Your task to perform on an android device: turn off notifications in google photos Image 0: 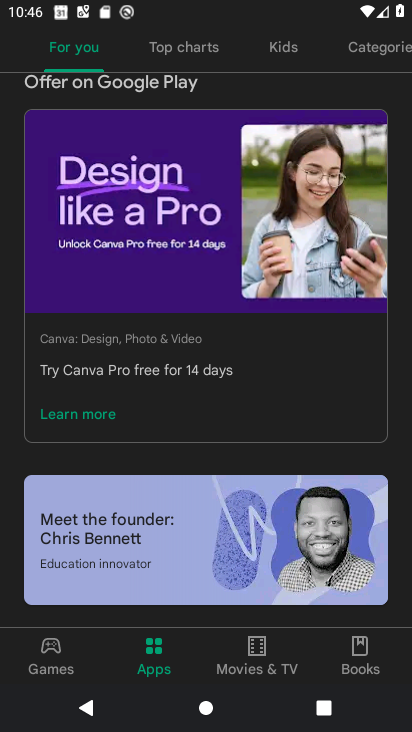
Step 0: press home button
Your task to perform on an android device: turn off notifications in google photos Image 1: 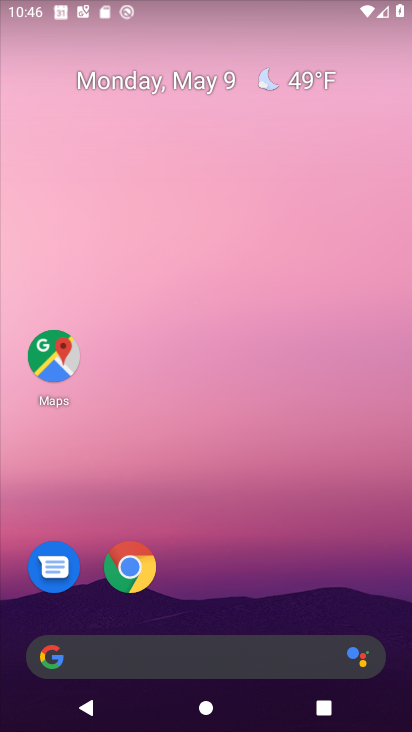
Step 1: click (130, 570)
Your task to perform on an android device: turn off notifications in google photos Image 2: 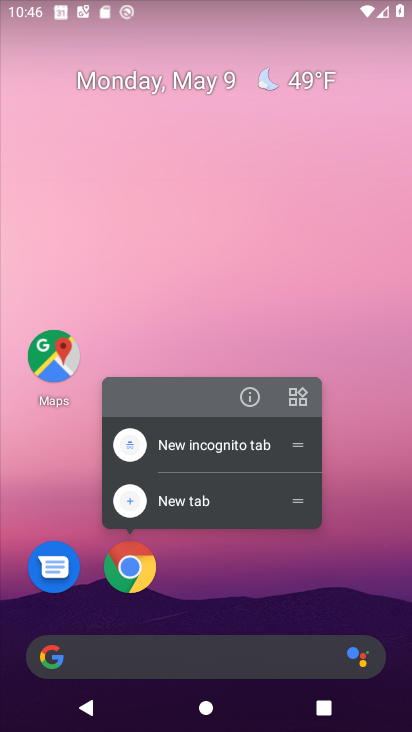
Step 2: drag from (206, 638) to (224, 251)
Your task to perform on an android device: turn off notifications in google photos Image 3: 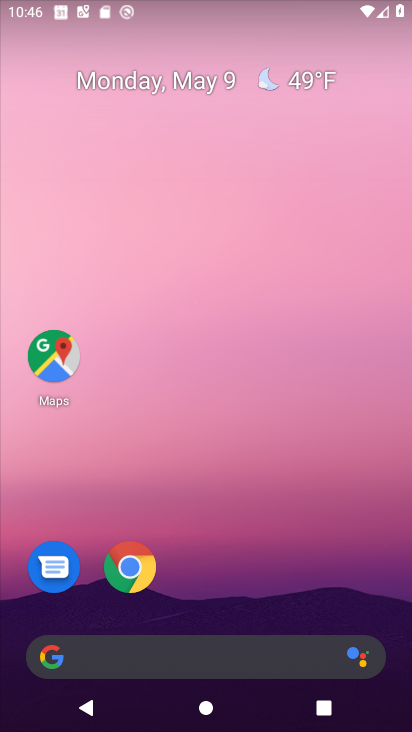
Step 3: drag from (167, 637) to (227, 256)
Your task to perform on an android device: turn off notifications in google photos Image 4: 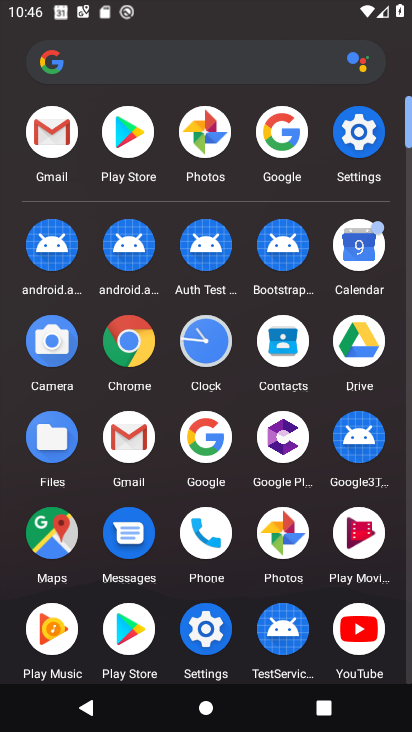
Step 4: click (274, 542)
Your task to perform on an android device: turn off notifications in google photos Image 5: 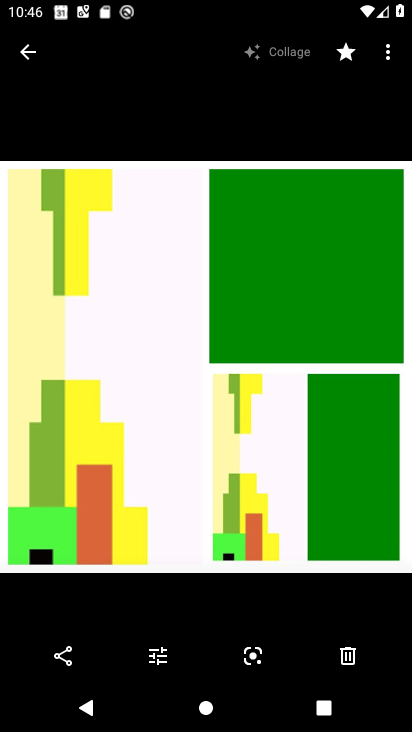
Step 5: click (31, 61)
Your task to perform on an android device: turn off notifications in google photos Image 6: 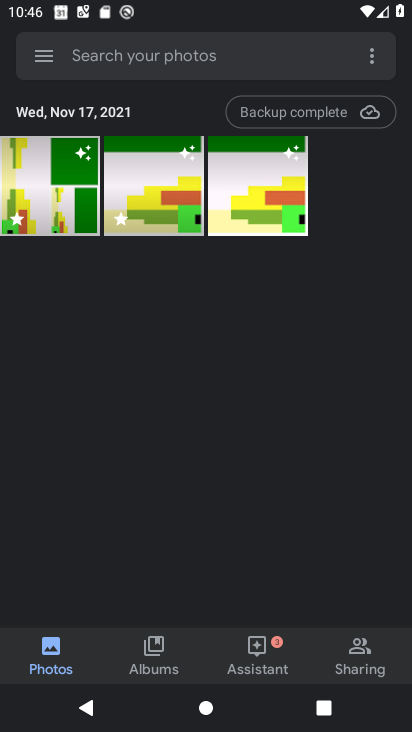
Step 6: click (42, 70)
Your task to perform on an android device: turn off notifications in google photos Image 7: 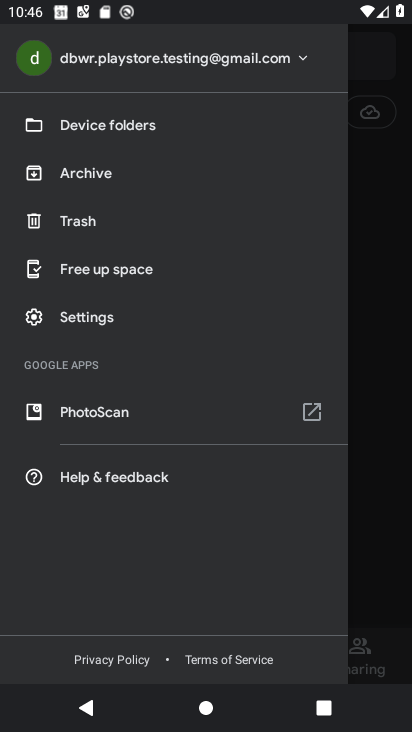
Step 7: click (90, 318)
Your task to perform on an android device: turn off notifications in google photos Image 8: 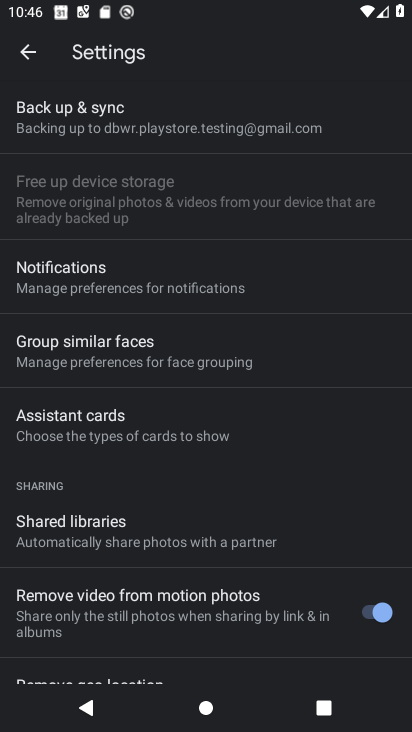
Step 8: click (69, 287)
Your task to perform on an android device: turn off notifications in google photos Image 9: 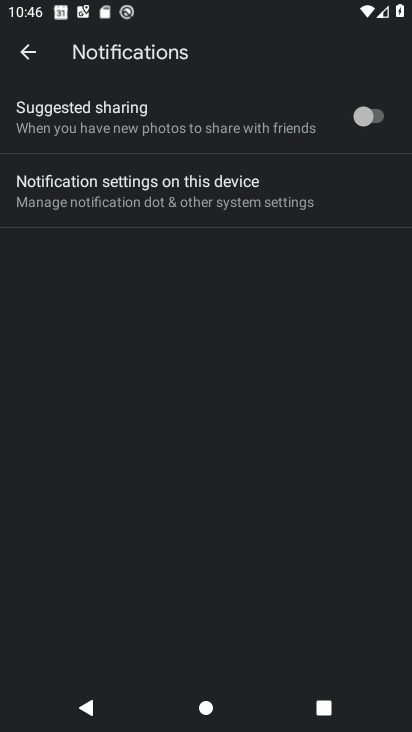
Step 9: click (112, 189)
Your task to perform on an android device: turn off notifications in google photos Image 10: 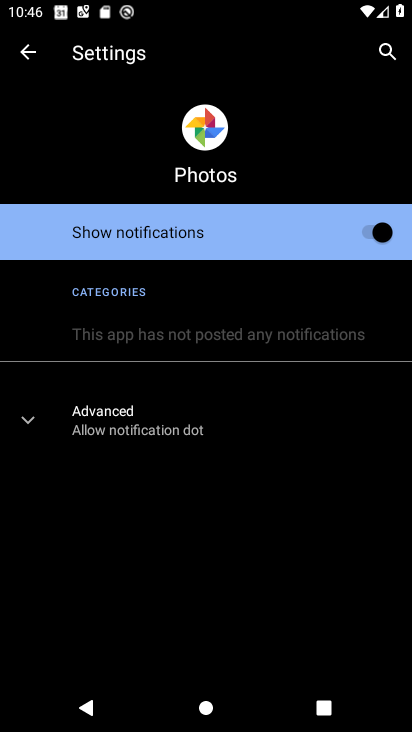
Step 10: click (365, 235)
Your task to perform on an android device: turn off notifications in google photos Image 11: 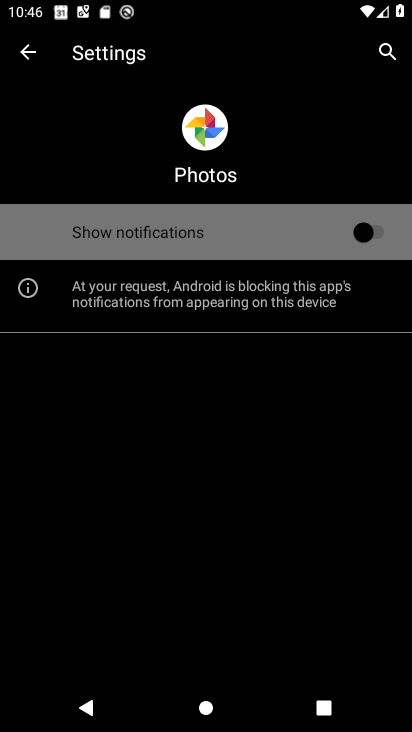
Step 11: task complete